Your task to perform on an android device: change your default location settings in chrome Image 0: 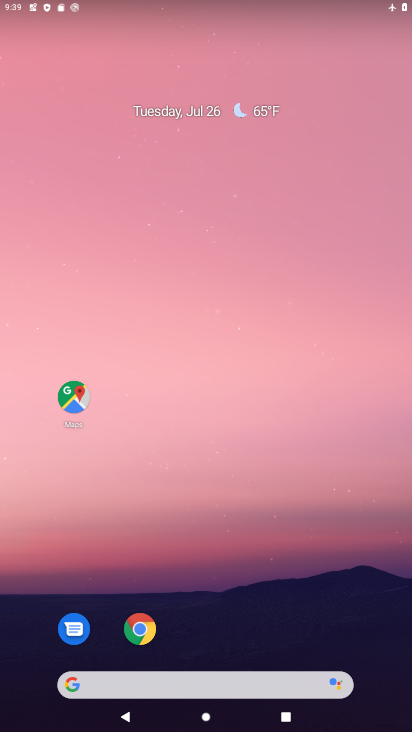
Step 0: drag from (252, 588) to (265, 50)
Your task to perform on an android device: change your default location settings in chrome Image 1: 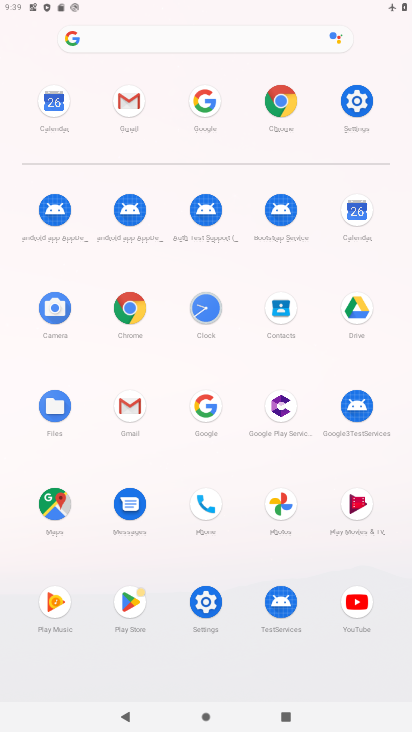
Step 1: click (135, 311)
Your task to perform on an android device: change your default location settings in chrome Image 2: 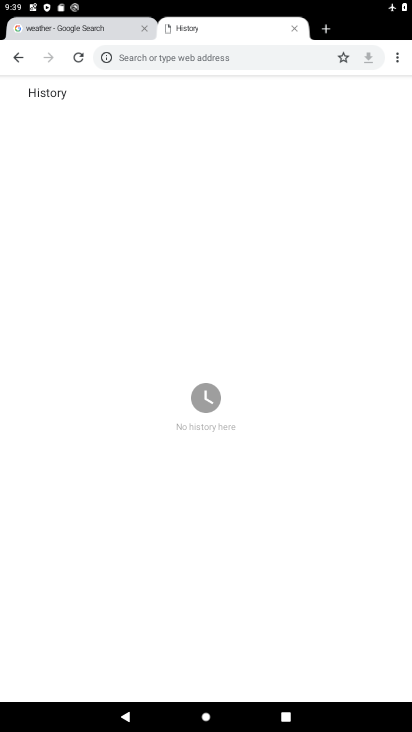
Step 2: drag from (396, 62) to (295, 256)
Your task to perform on an android device: change your default location settings in chrome Image 3: 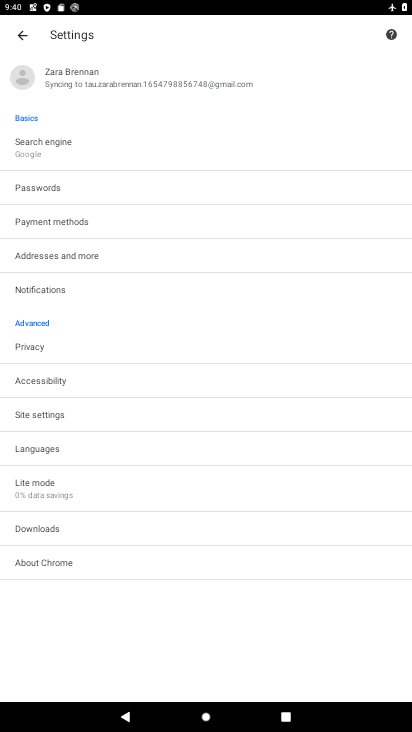
Step 3: click (53, 416)
Your task to perform on an android device: change your default location settings in chrome Image 4: 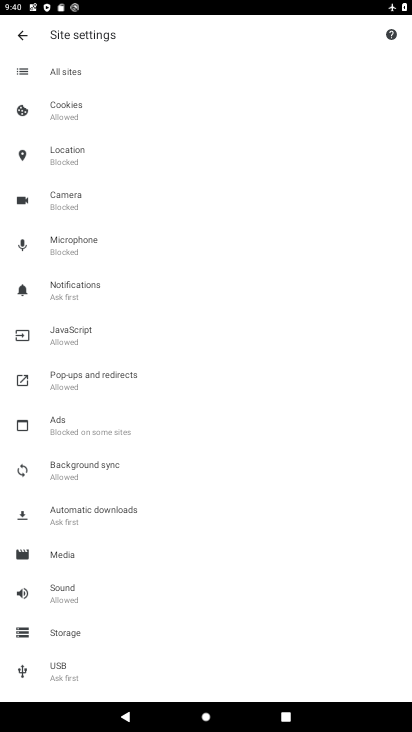
Step 4: click (68, 153)
Your task to perform on an android device: change your default location settings in chrome Image 5: 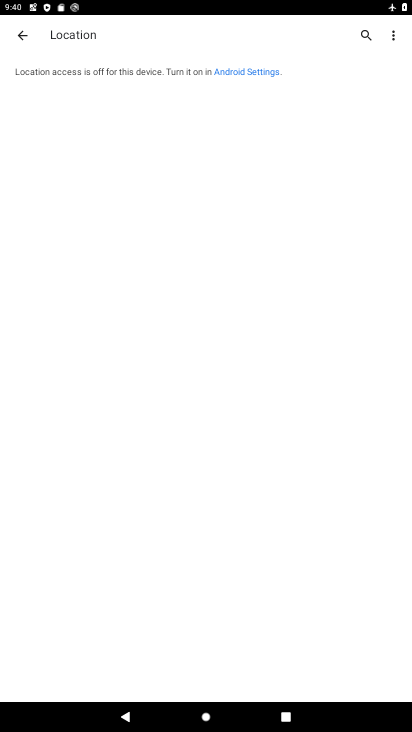
Step 5: task complete